Your task to perform on an android device: Open calendar and show me the fourth week of next month Image 0: 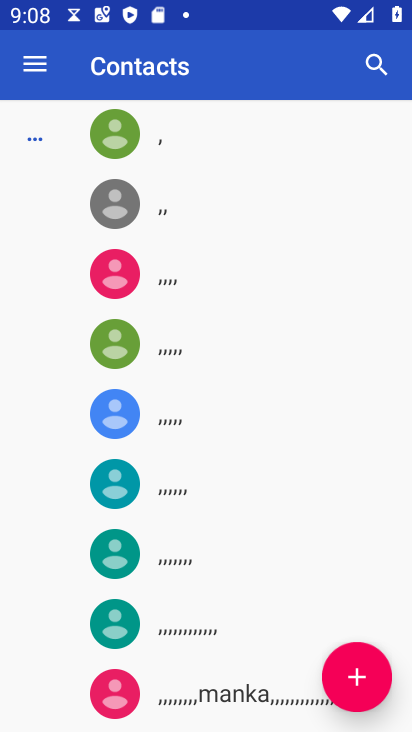
Step 0: press back button
Your task to perform on an android device: Open calendar and show me the fourth week of next month Image 1: 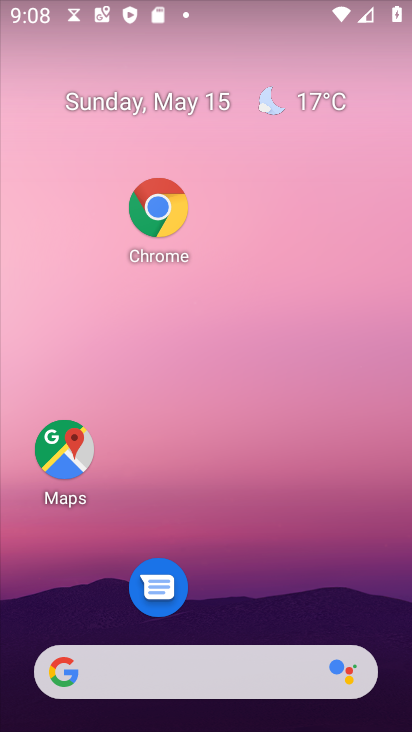
Step 1: drag from (353, 587) to (161, 30)
Your task to perform on an android device: Open calendar and show me the fourth week of next month Image 2: 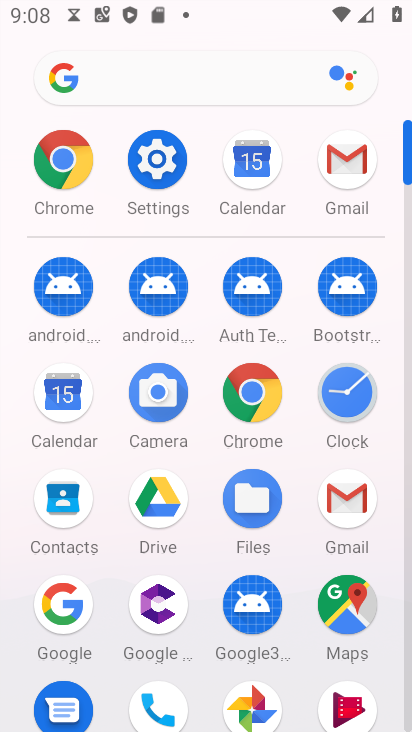
Step 2: click (248, 183)
Your task to perform on an android device: Open calendar and show me the fourth week of next month Image 3: 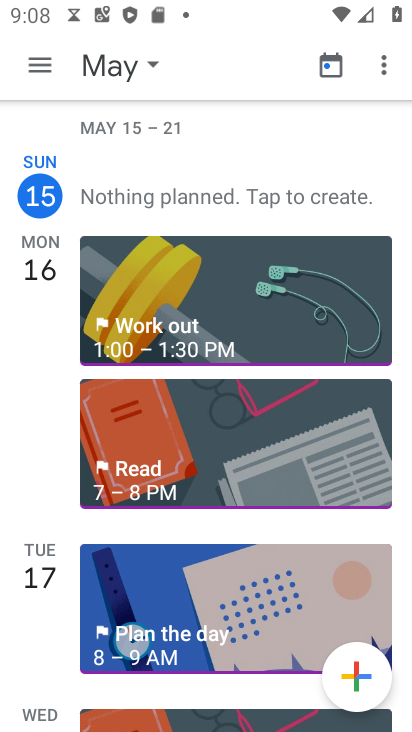
Step 3: click (158, 67)
Your task to perform on an android device: Open calendar and show me the fourth week of next month Image 4: 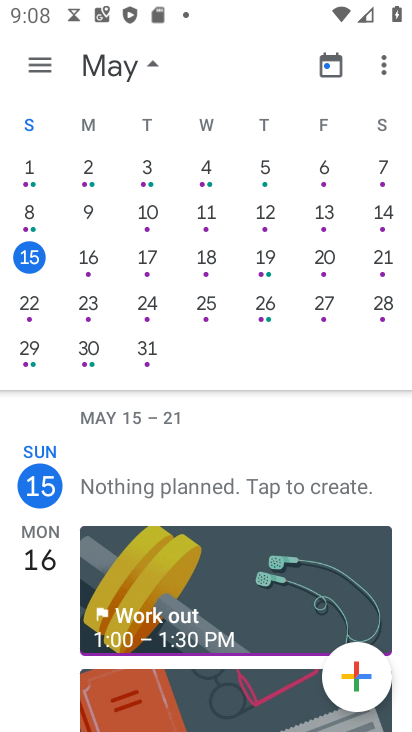
Step 4: drag from (277, 238) to (0, 68)
Your task to perform on an android device: Open calendar and show me the fourth week of next month Image 5: 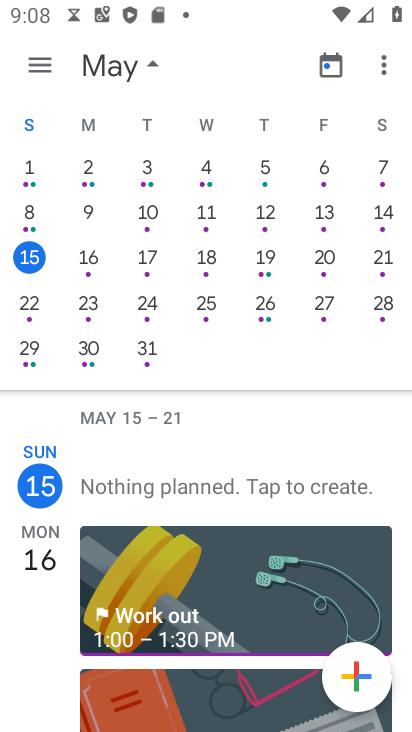
Step 5: drag from (276, 211) to (36, 230)
Your task to perform on an android device: Open calendar and show me the fourth week of next month Image 6: 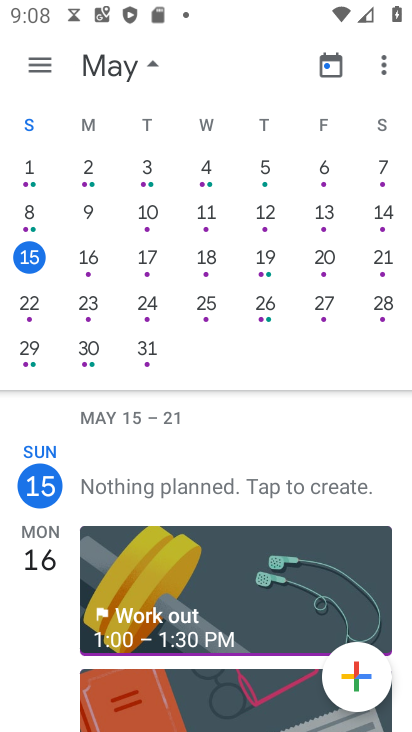
Step 6: drag from (273, 239) to (0, 252)
Your task to perform on an android device: Open calendar and show me the fourth week of next month Image 7: 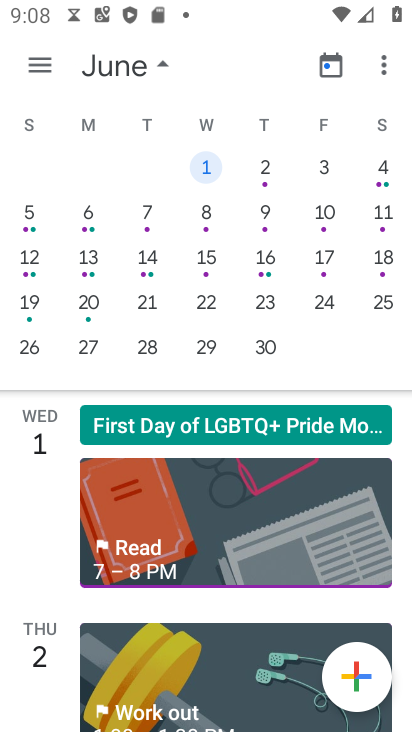
Step 7: drag from (261, 242) to (53, 228)
Your task to perform on an android device: Open calendar and show me the fourth week of next month Image 8: 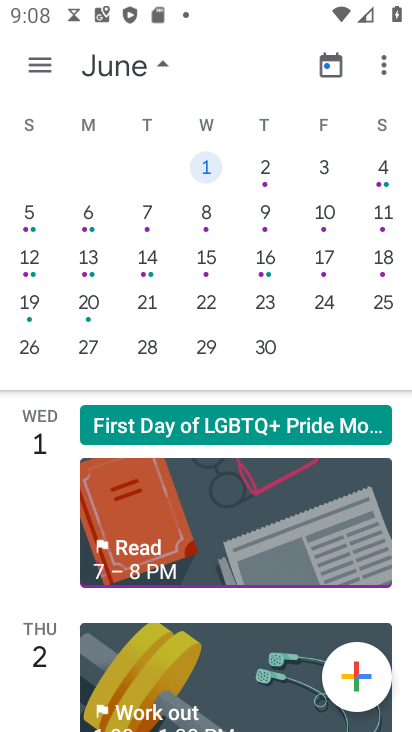
Step 8: drag from (205, 295) to (201, 332)
Your task to perform on an android device: Open calendar and show me the fourth week of next month Image 9: 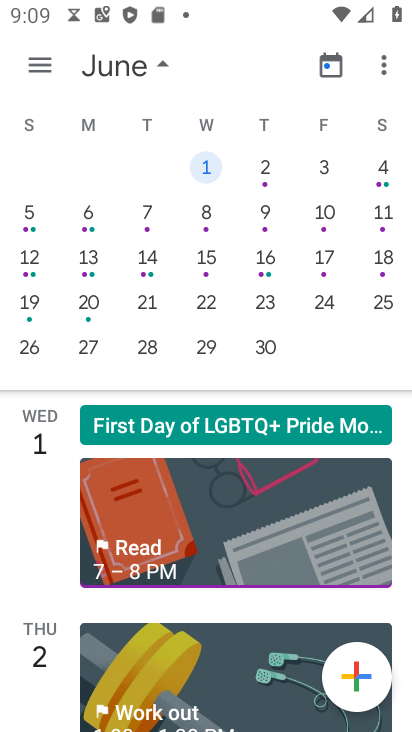
Step 9: click (208, 296)
Your task to perform on an android device: Open calendar and show me the fourth week of next month Image 10: 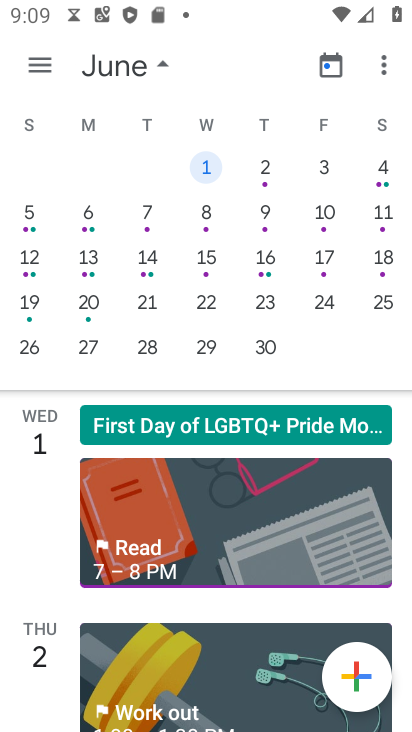
Step 10: click (208, 296)
Your task to perform on an android device: Open calendar and show me the fourth week of next month Image 11: 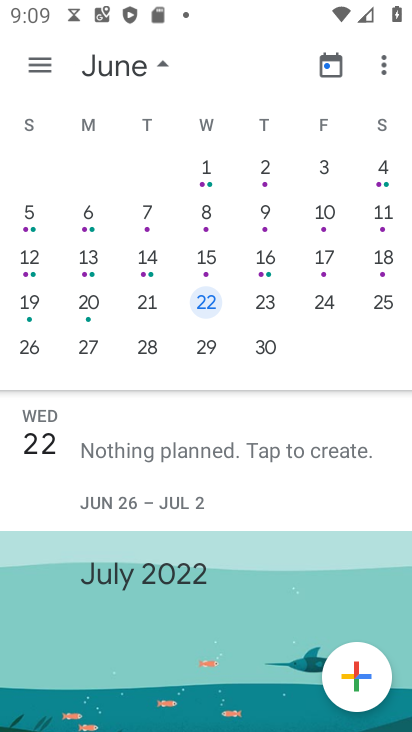
Step 11: click (208, 296)
Your task to perform on an android device: Open calendar and show me the fourth week of next month Image 12: 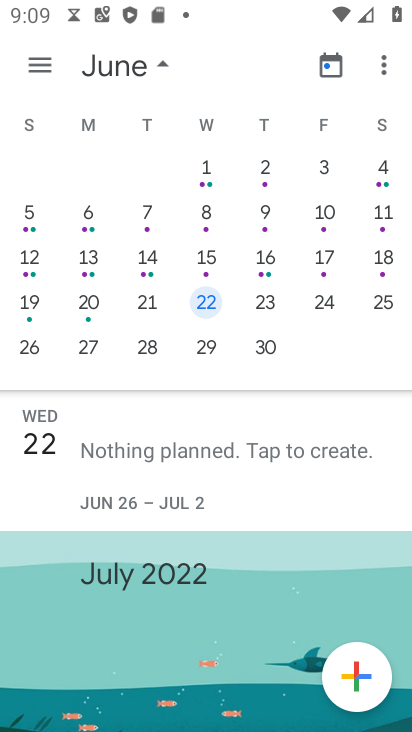
Step 12: task complete